Your task to perform on an android device: check android version Image 0: 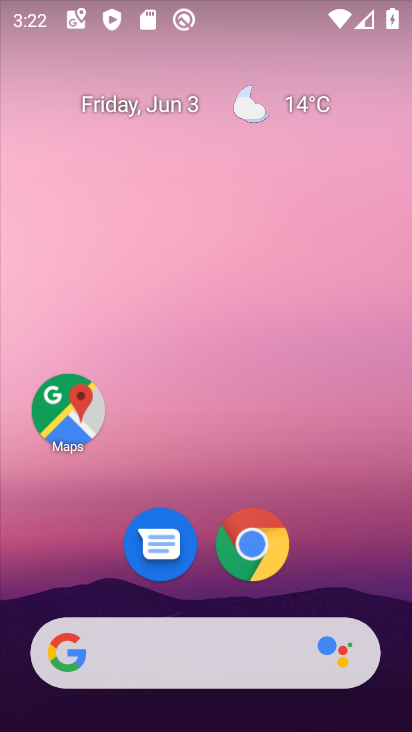
Step 0: drag from (392, 616) to (309, 13)
Your task to perform on an android device: check android version Image 1: 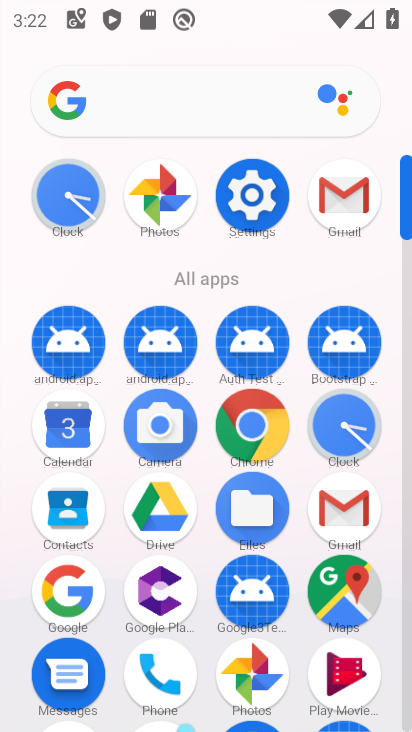
Step 1: click (399, 682)
Your task to perform on an android device: check android version Image 2: 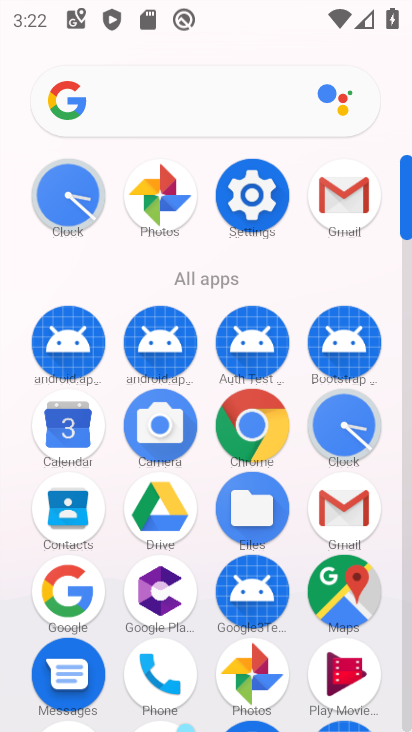
Step 2: click (405, 697)
Your task to perform on an android device: check android version Image 3: 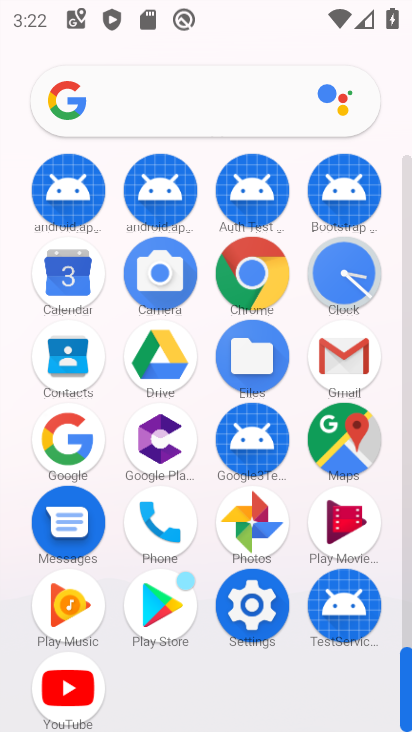
Step 3: click (254, 609)
Your task to perform on an android device: check android version Image 4: 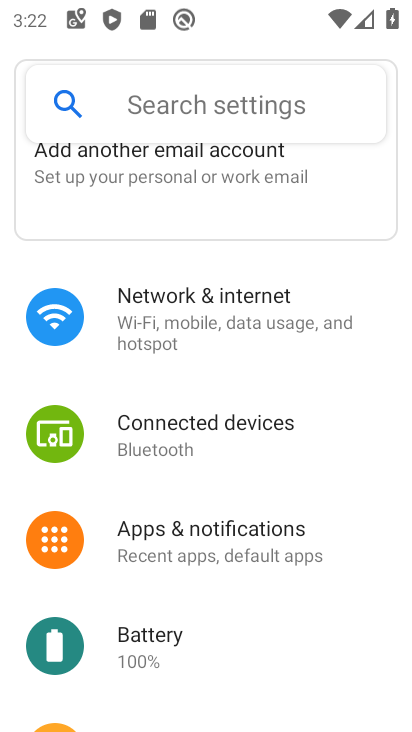
Step 4: drag from (309, 646) to (326, 102)
Your task to perform on an android device: check android version Image 5: 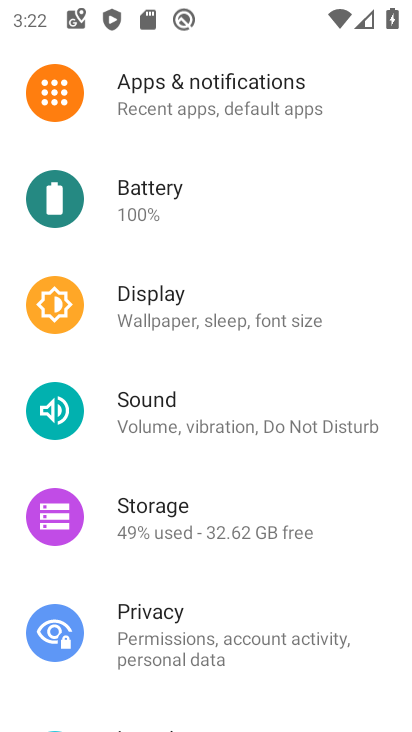
Step 5: drag from (350, 620) to (353, 140)
Your task to perform on an android device: check android version Image 6: 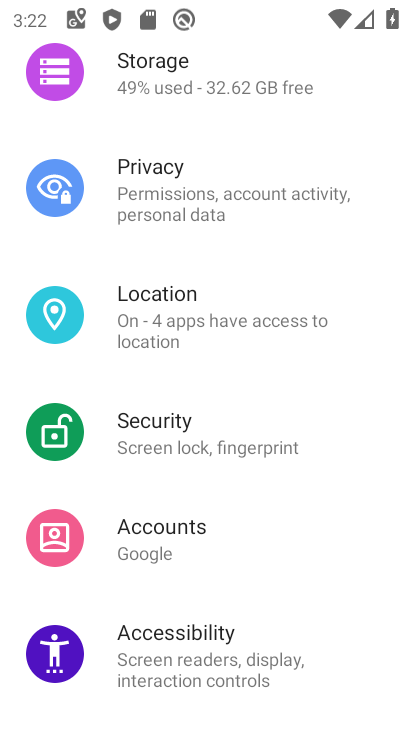
Step 6: drag from (333, 647) to (361, 254)
Your task to perform on an android device: check android version Image 7: 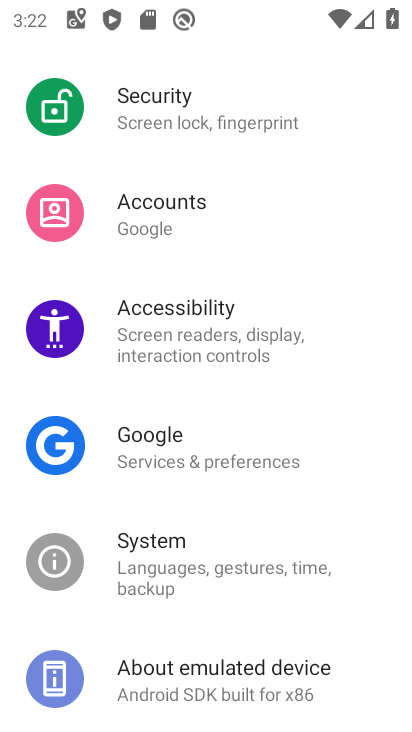
Step 7: click (170, 643)
Your task to perform on an android device: check android version Image 8: 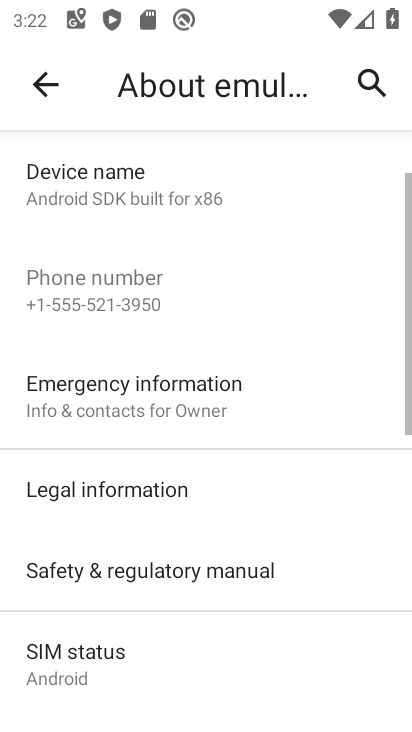
Step 8: drag from (170, 643) to (222, 173)
Your task to perform on an android device: check android version Image 9: 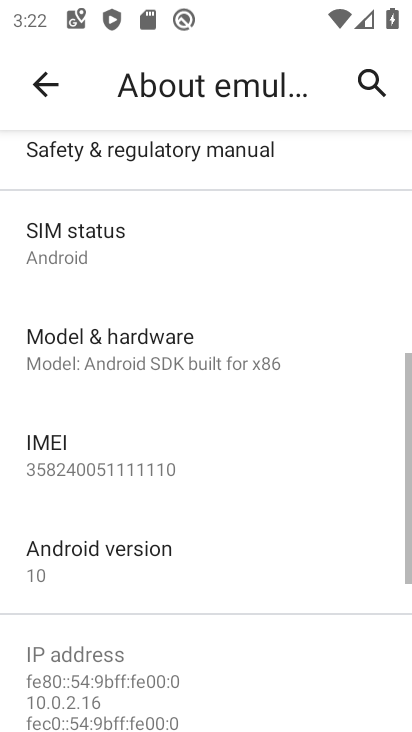
Step 9: click (97, 546)
Your task to perform on an android device: check android version Image 10: 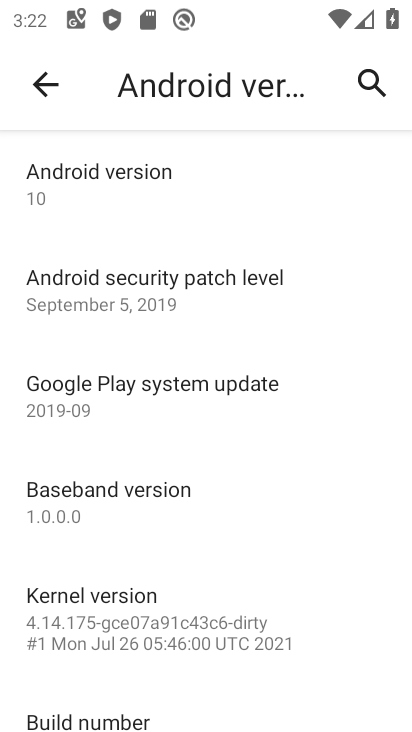
Step 10: task complete